Your task to perform on an android device: turn on the 24-hour format for clock Image 0: 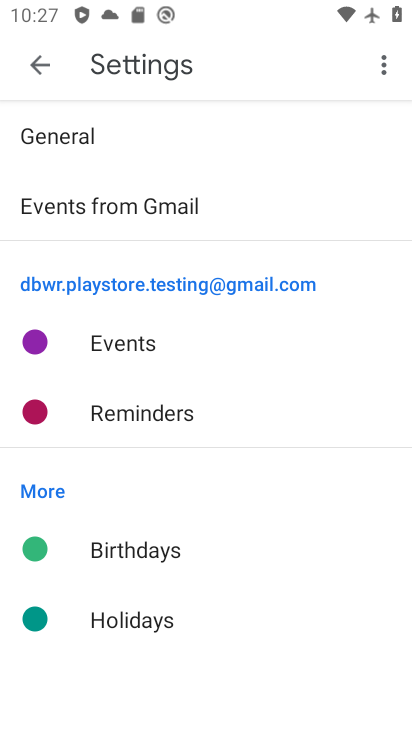
Step 0: press home button
Your task to perform on an android device: turn on the 24-hour format for clock Image 1: 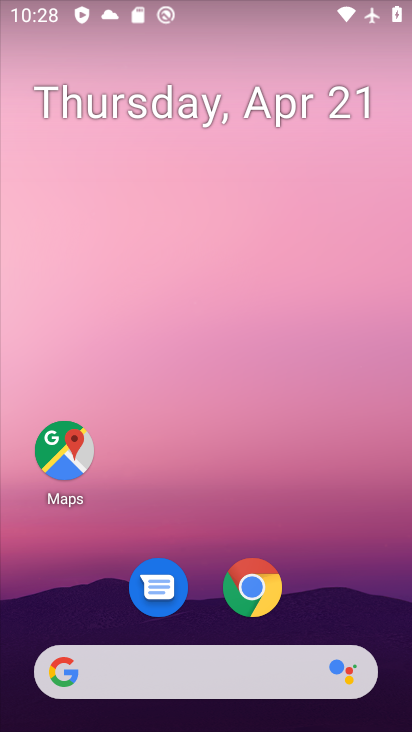
Step 1: drag from (350, 602) to (361, 157)
Your task to perform on an android device: turn on the 24-hour format for clock Image 2: 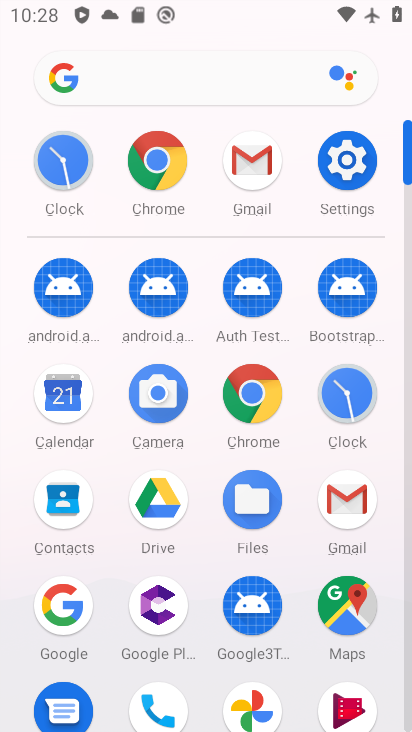
Step 2: click (347, 394)
Your task to perform on an android device: turn on the 24-hour format for clock Image 3: 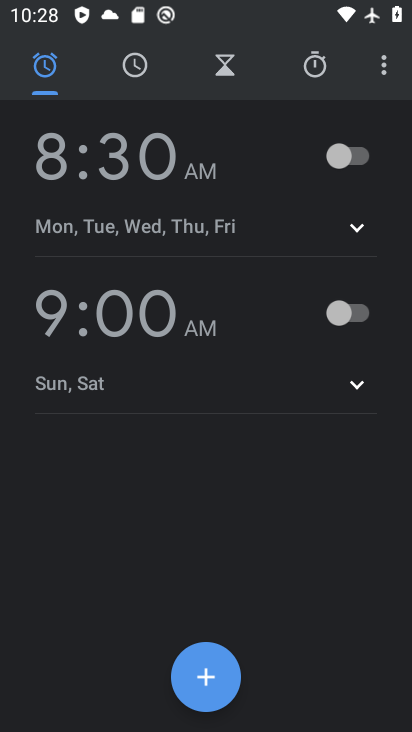
Step 3: click (385, 73)
Your task to perform on an android device: turn on the 24-hour format for clock Image 4: 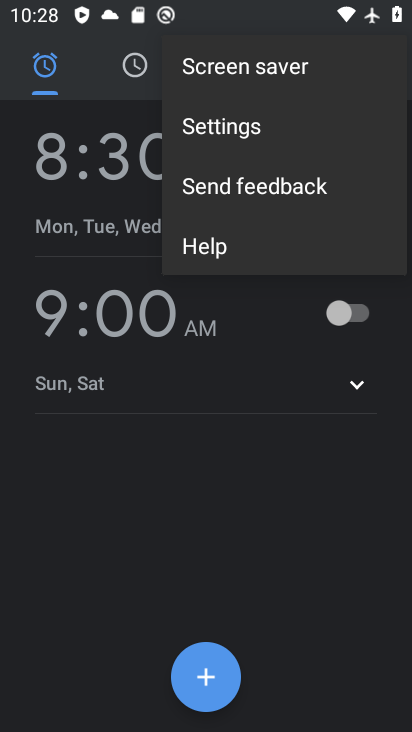
Step 4: click (247, 135)
Your task to perform on an android device: turn on the 24-hour format for clock Image 5: 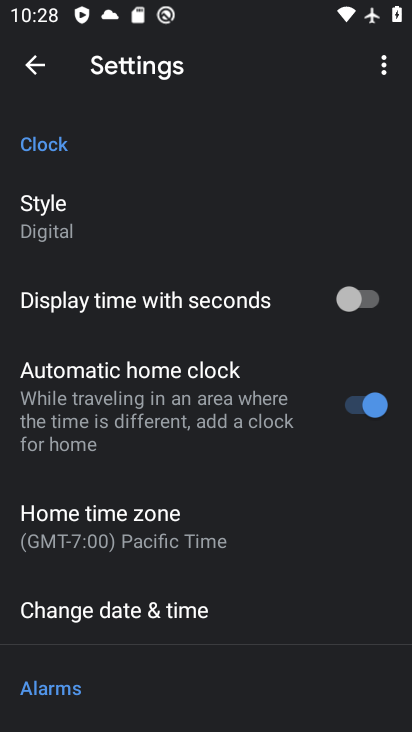
Step 5: drag from (307, 548) to (312, 351)
Your task to perform on an android device: turn on the 24-hour format for clock Image 6: 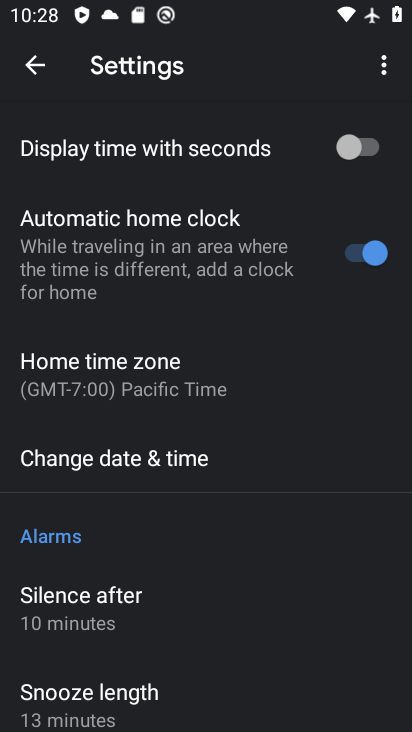
Step 6: drag from (304, 534) to (314, 365)
Your task to perform on an android device: turn on the 24-hour format for clock Image 7: 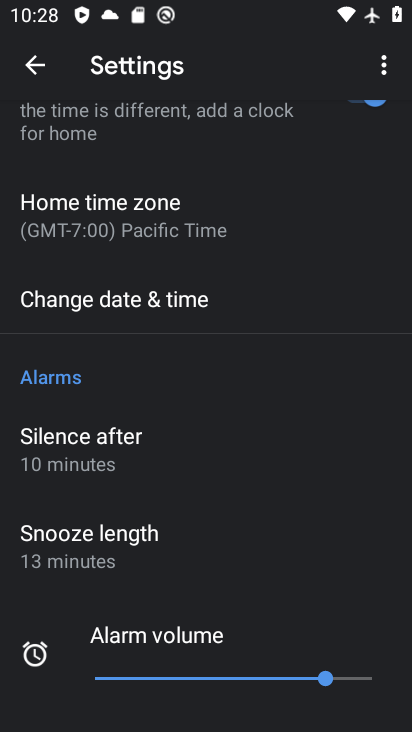
Step 7: click (170, 290)
Your task to perform on an android device: turn on the 24-hour format for clock Image 8: 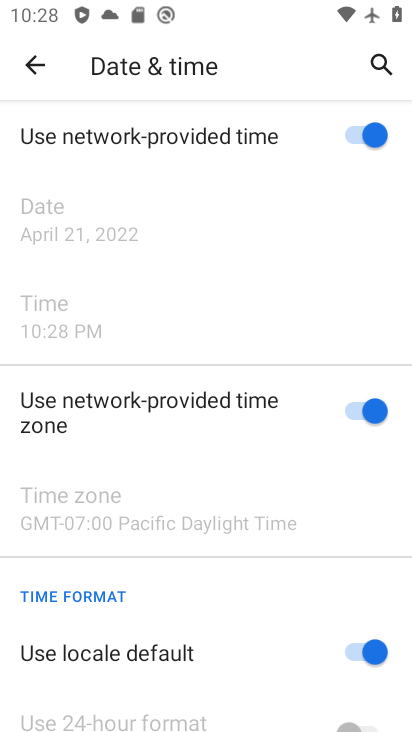
Step 8: drag from (280, 621) to (293, 366)
Your task to perform on an android device: turn on the 24-hour format for clock Image 9: 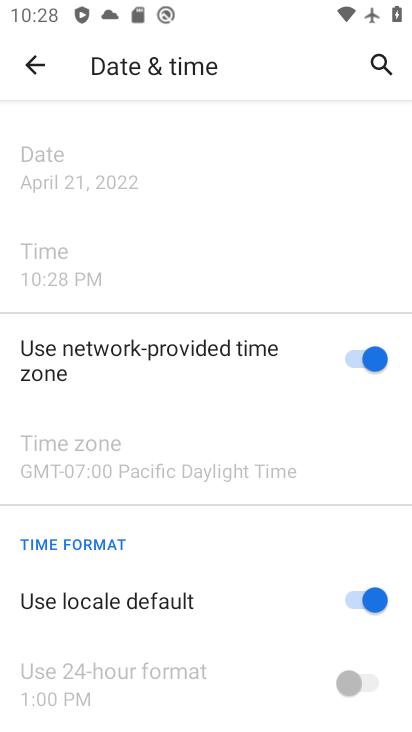
Step 9: click (374, 592)
Your task to perform on an android device: turn on the 24-hour format for clock Image 10: 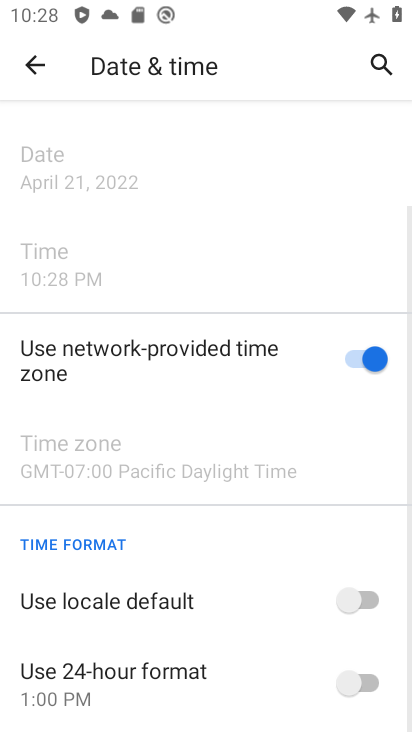
Step 10: click (345, 683)
Your task to perform on an android device: turn on the 24-hour format for clock Image 11: 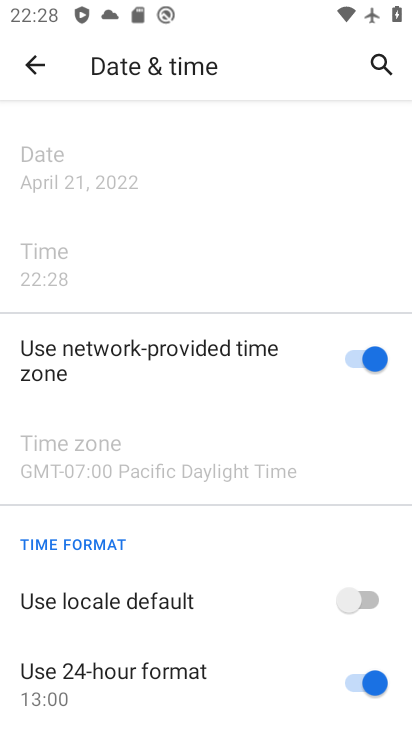
Step 11: task complete